Your task to perform on an android device: Open Reddit.com Image 0: 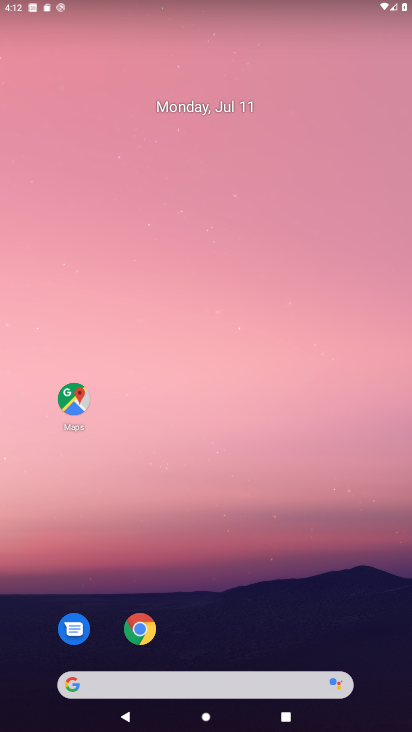
Step 0: drag from (392, 647) to (324, 166)
Your task to perform on an android device: Open Reddit.com Image 1: 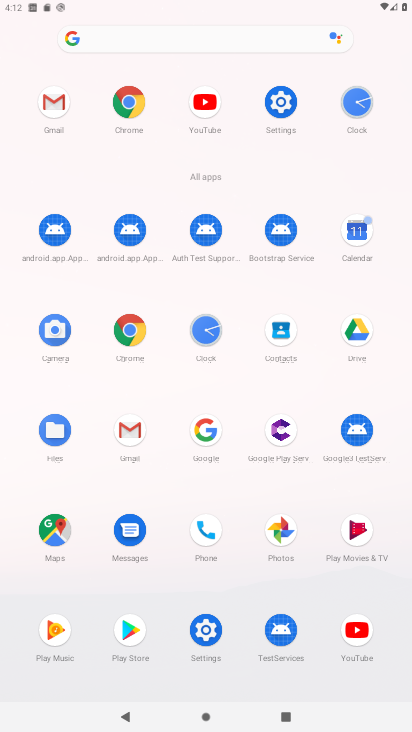
Step 1: click (131, 322)
Your task to perform on an android device: Open Reddit.com Image 2: 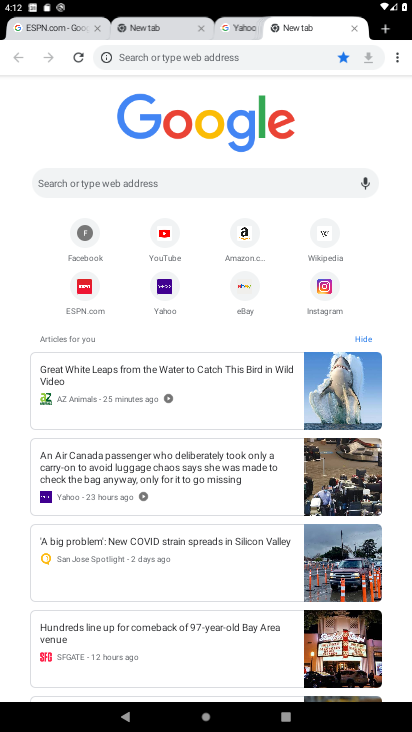
Step 2: click (99, 183)
Your task to perform on an android device: Open Reddit.com Image 3: 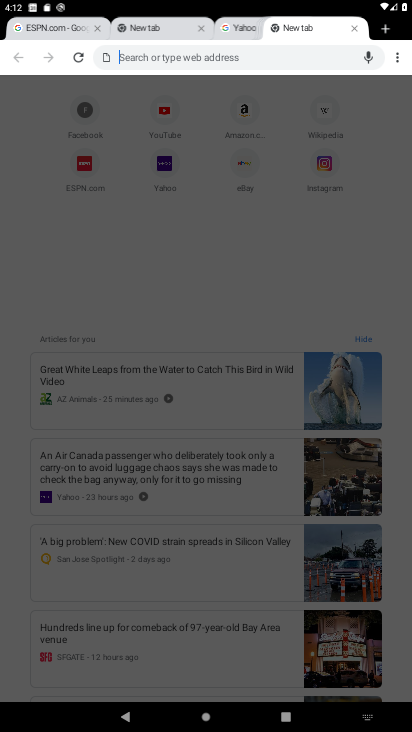
Step 3: type "Reddit.com"
Your task to perform on an android device: Open Reddit.com Image 4: 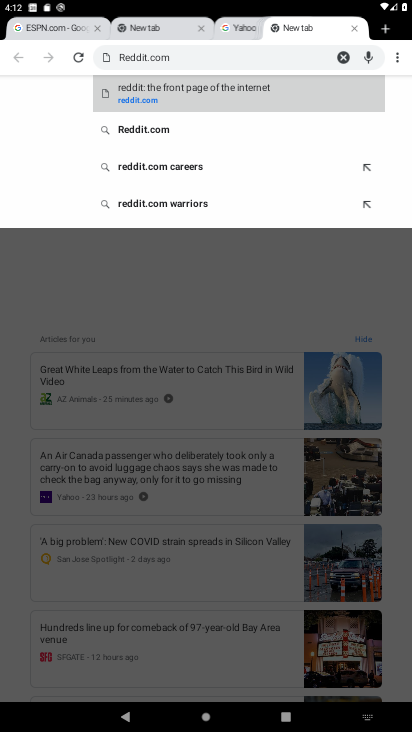
Step 4: click (166, 129)
Your task to perform on an android device: Open Reddit.com Image 5: 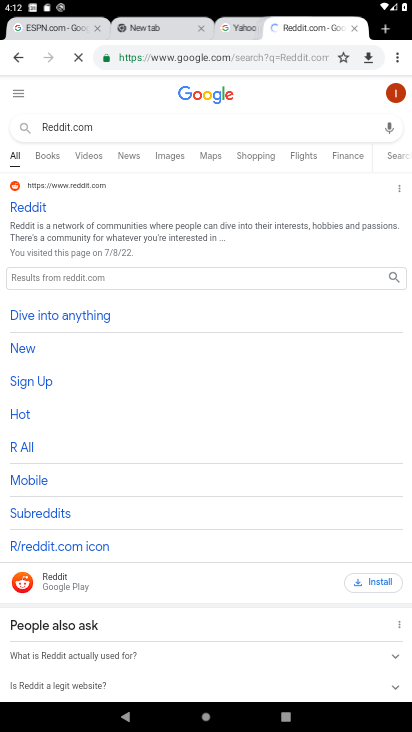
Step 5: task complete